Your task to perform on an android device: Show me the alarms in the clock app Image 0: 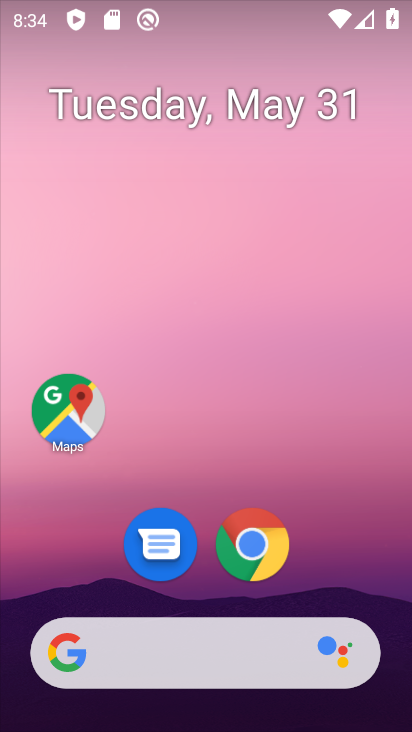
Step 0: drag from (342, 559) to (292, 98)
Your task to perform on an android device: Show me the alarms in the clock app Image 1: 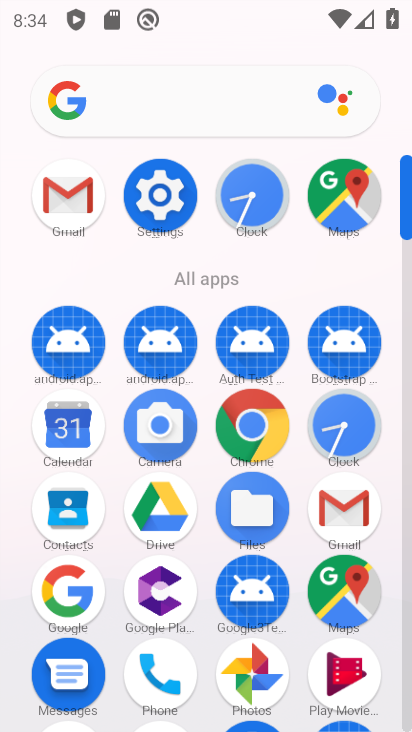
Step 1: click (258, 202)
Your task to perform on an android device: Show me the alarms in the clock app Image 2: 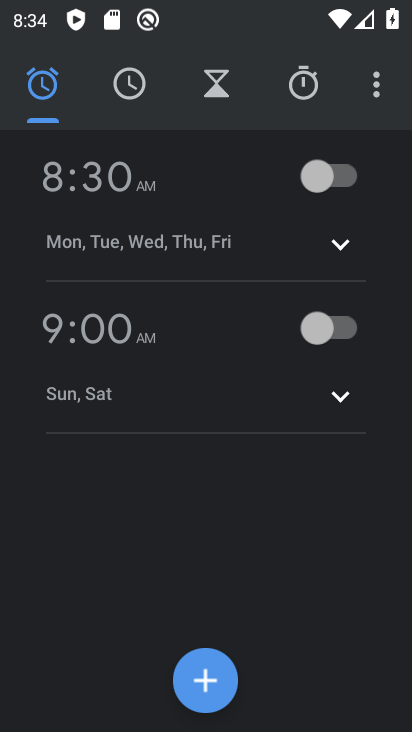
Step 2: task complete